Your task to perform on an android device: stop showing notifications on the lock screen Image 0: 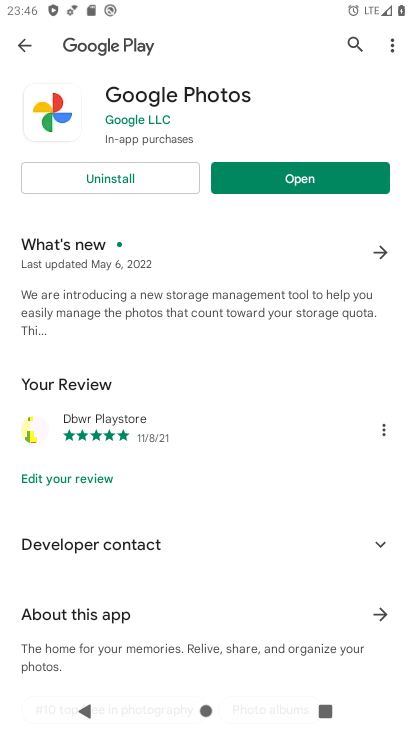
Step 0: drag from (242, 577) to (234, 232)
Your task to perform on an android device: stop showing notifications on the lock screen Image 1: 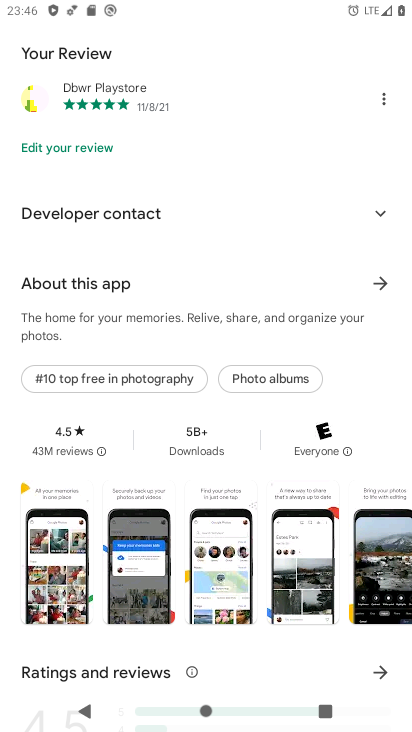
Step 1: drag from (219, 182) to (362, 670)
Your task to perform on an android device: stop showing notifications on the lock screen Image 2: 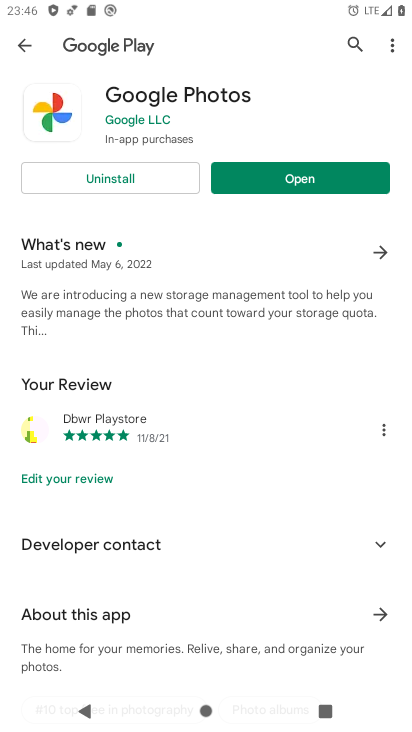
Step 2: press home button
Your task to perform on an android device: stop showing notifications on the lock screen Image 3: 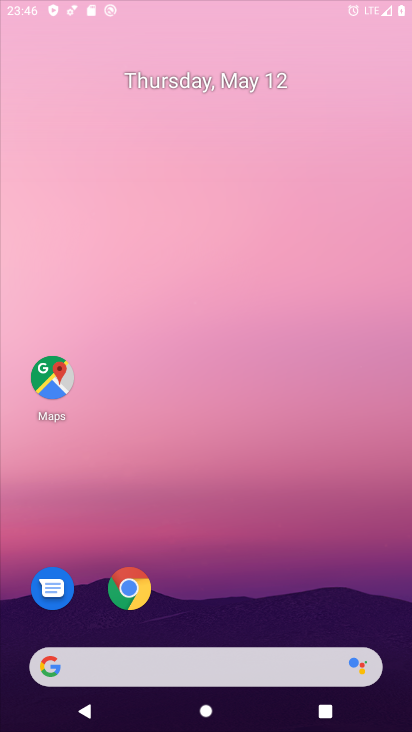
Step 3: drag from (251, 568) to (275, 148)
Your task to perform on an android device: stop showing notifications on the lock screen Image 4: 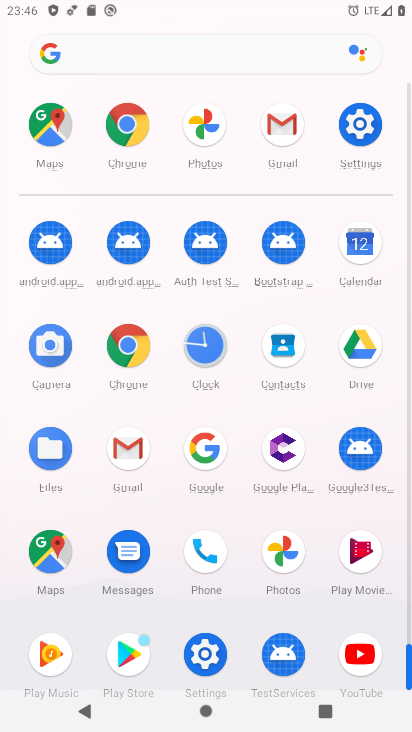
Step 4: click (365, 119)
Your task to perform on an android device: stop showing notifications on the lock screen Image 5: 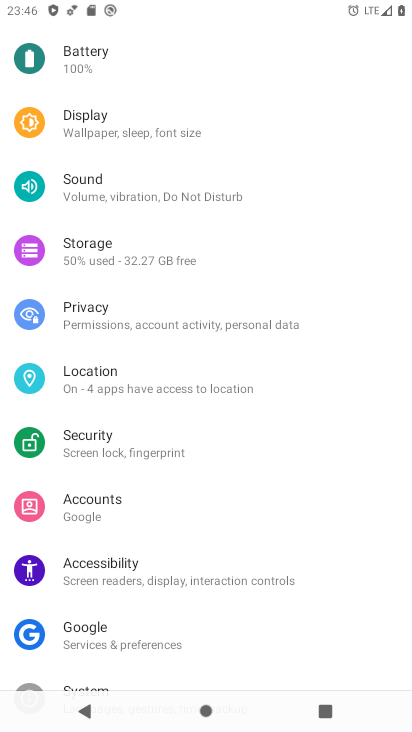
Step 5: drag from (152, 547) to (276, 107)
Your task to perform on an android device: stop showing notifications on the lock screen Image 6: 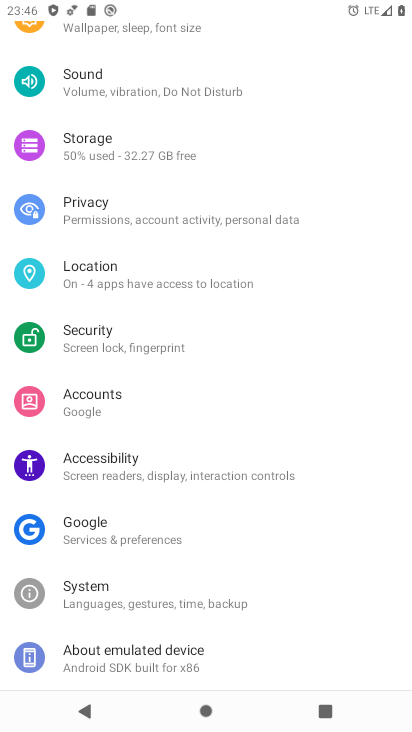
Step 6: drag from (238, 49) to (202, 629)
Your task to perform on an android device: stop showing notifications on the lock screen Image 7: 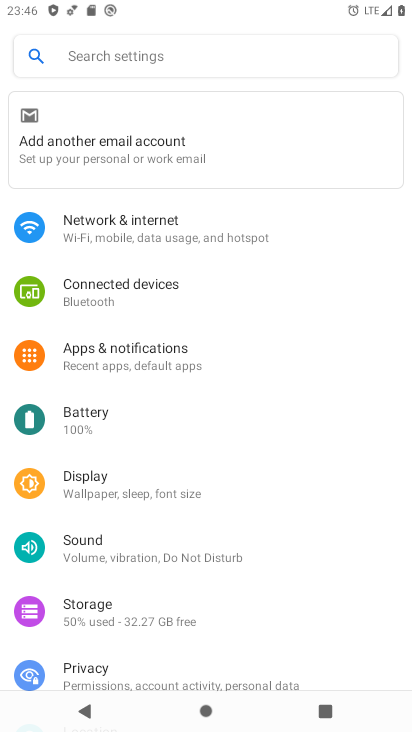
Step 7: click (203, 360)
Your task to perform on an android device: stop showing notifications on the lock screen Image 8: 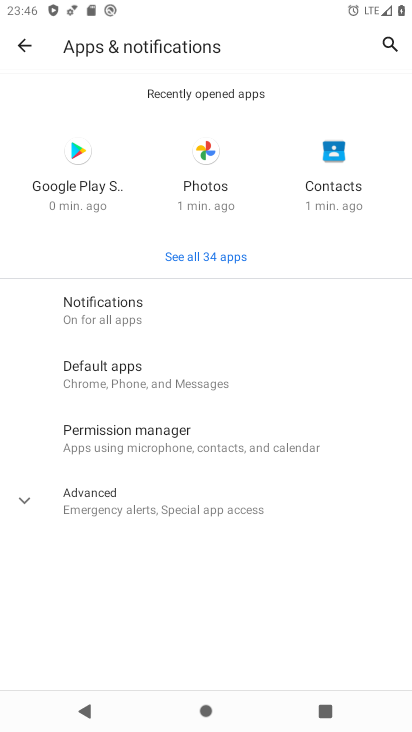
Step 8: click (145, 468)
Your task to perform on an android device: stop showing notifications on the lock screen Image 9: 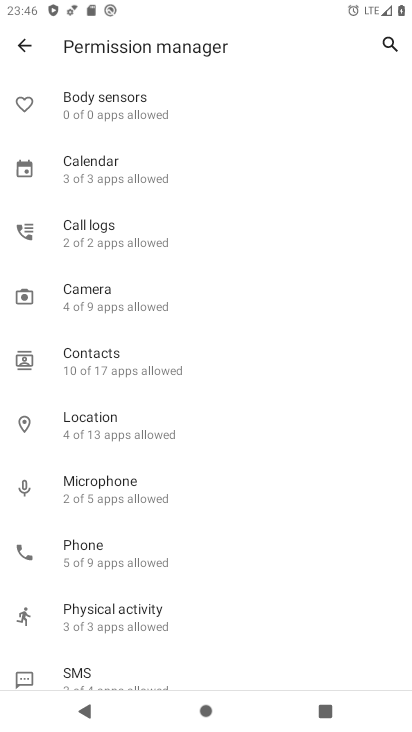
Step 9: click (35, 53)
Your task to perform on an android device: stop showing notifications on the lock screen Image 10: 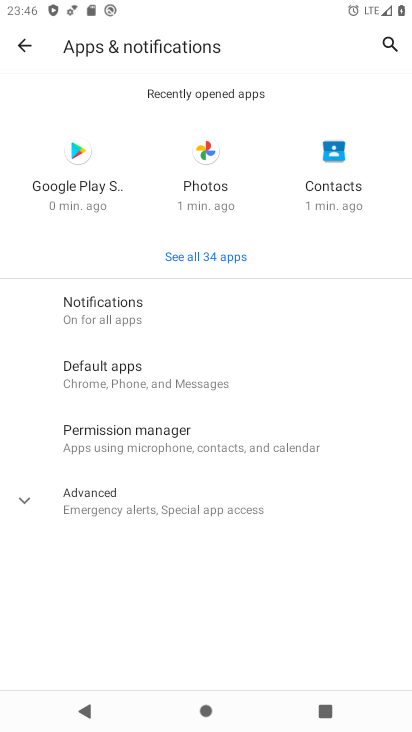
Step 10: click (132, 321)
Your task to perform on an android device: stop showing notifications on the lock screen Image 11: 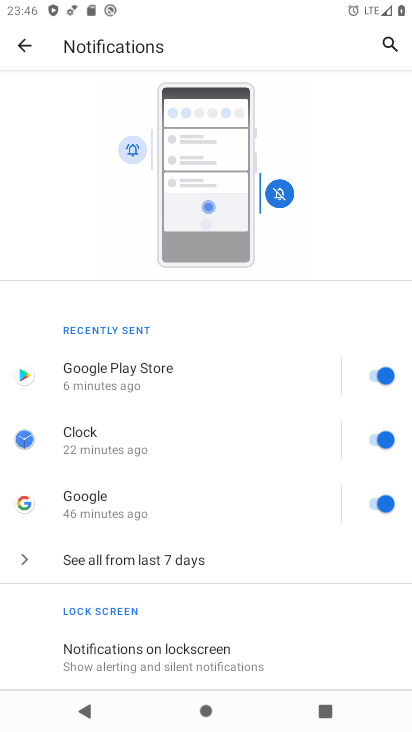
Step 11: click (151, 614)
Your task to perform on an android device: stop showing notifications on the lock screen Image 12: 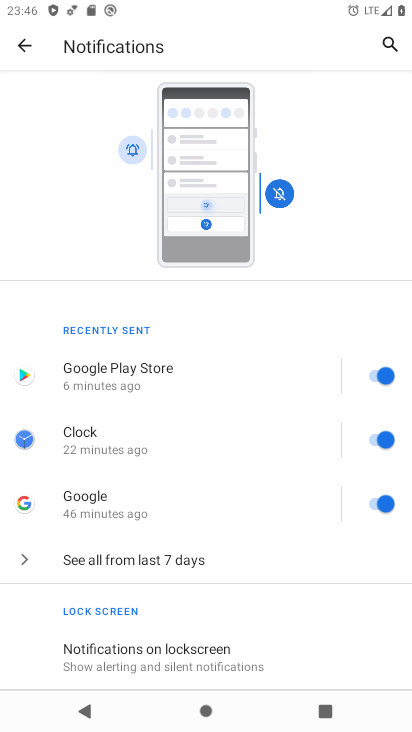
Step 12: click (177, 654)
Your task to perform on an android device: stop showing notifications on the lock screen Image 13: 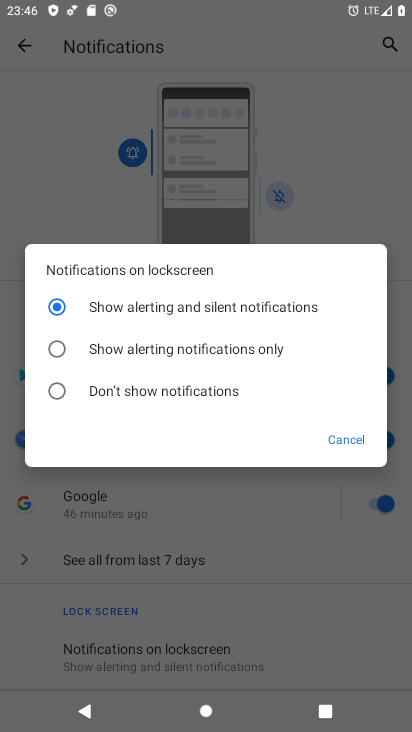
Step 13: click (73, 383)
Your task to perform on an android device: stop showing notifications on the lock screen Image 14: 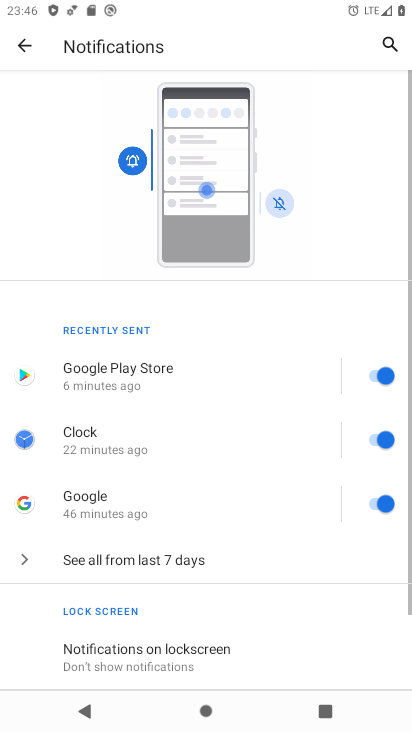
Step 14: task complete